Your task to perform on an android device: Open the calendar and show me this week's events? Image 0: 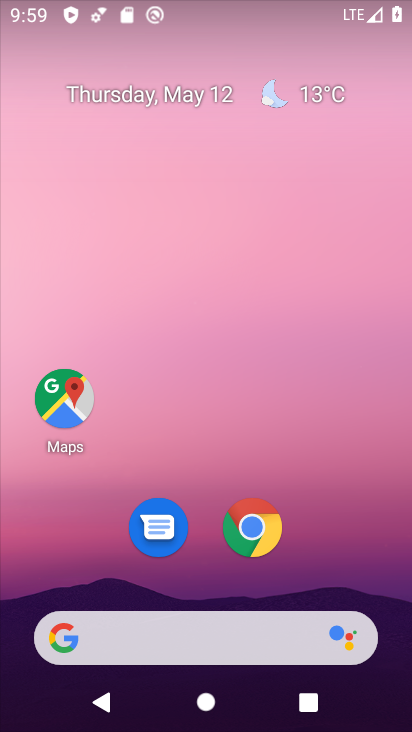
Step 0: drag from (320, 562) to (277, 155)
Your task to perform on an android device: Open the calendar and show me this week's events? Image 1: 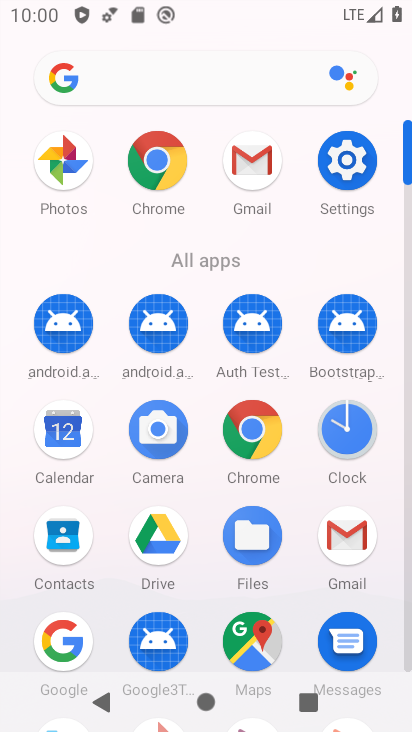
Step 1: click (63, 432)
Your task to perform on an android device: Open the calendar and show me this week's events? Image 2: 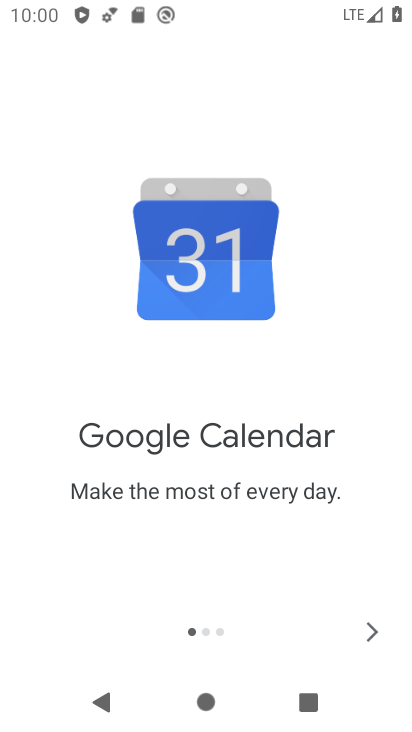
Step 2: click (371, 633)
Your task to perform on an android device: Open the calendar and show me this week's events? Image 3: 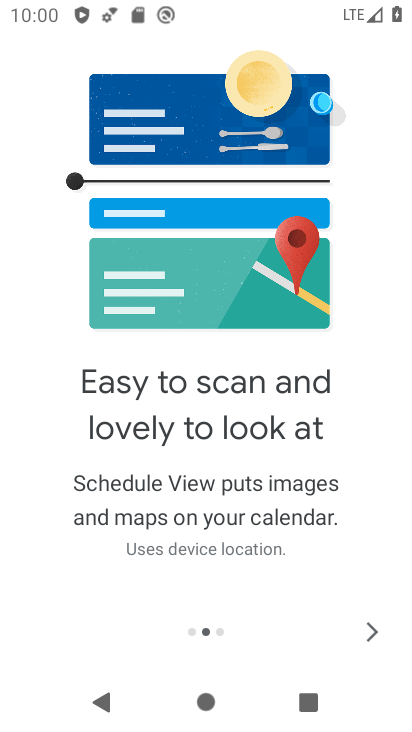
Step 3: click (371, 633)
Your task to perform on an android device: Open the calendar and show me this week's events? Image 4: 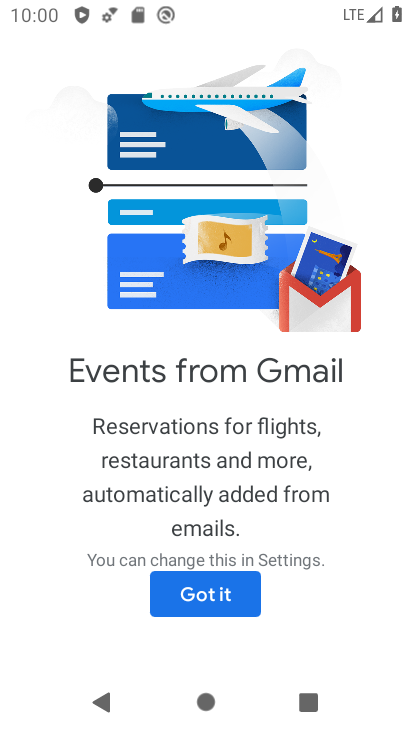
Step 4: click (202, 590)
Your task to perform on an android device: Open the calendar and show me this week's events? Image 5: 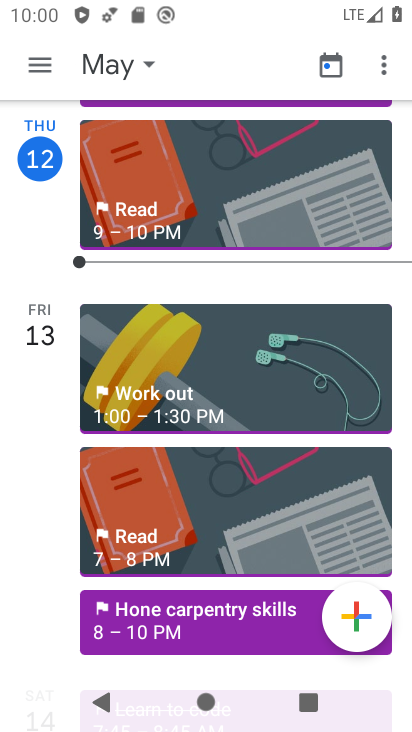
Step 5: click (146, 65)
Your task to perform on an android device: Open the calendar and show me this week's events? Image 6: 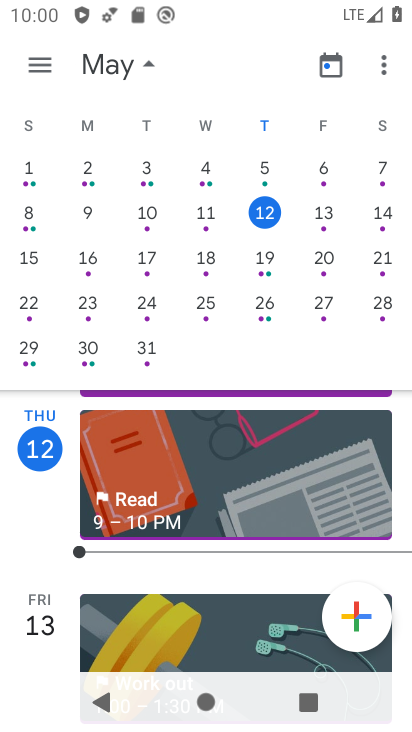
Step 6: click (42, 67)
Your task to perform on an android device: Open the calendar and show me this week's events? Image 7: 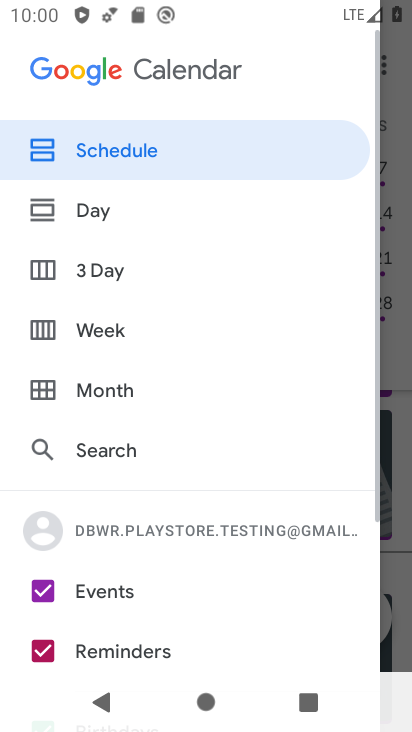
Step 7: click (96, 135)
Your task to perform on an android device: Open the calendar and show me this week's events? Image 8: 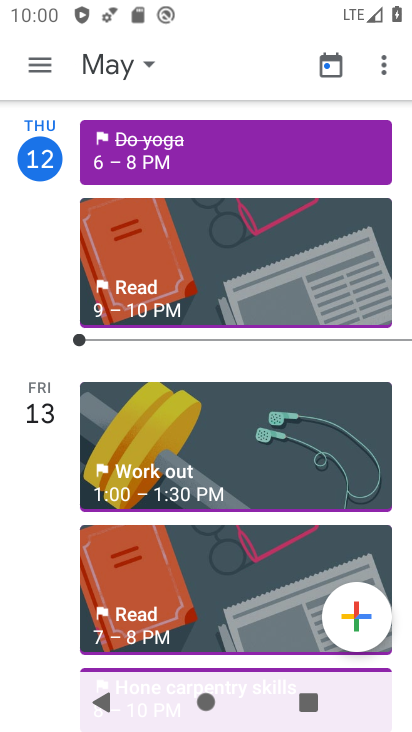
Step 8: task complete